Your task to perform on an android device: Open internet settings Image 0: 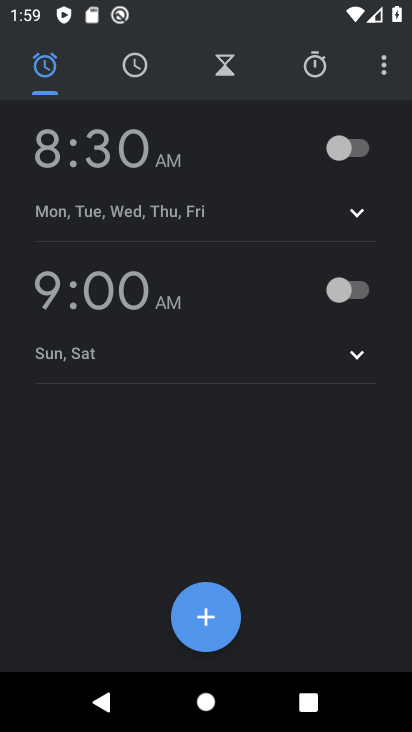
Step 0: press back button
Your task to perform on an android device: Open internet settings Image 1: 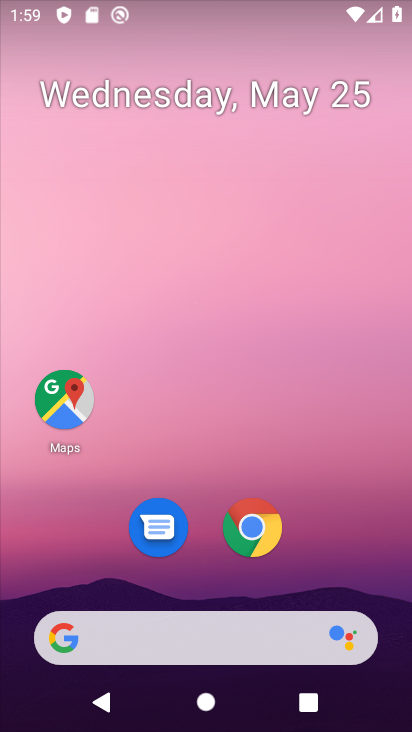
Step 1: drag from (236, 293) to (252, 5)
Your task to perform on an android device: Open internet settings Image 2: 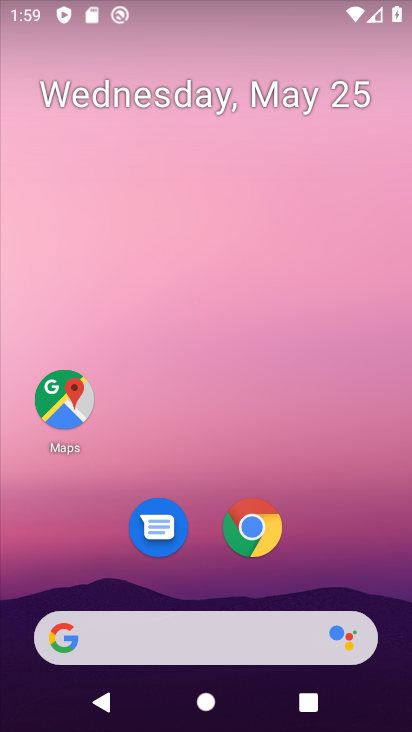
Step 2: drag from (173, 567) to (250, 50)
Your task to perform on an android device: Open internet settings Image 3: 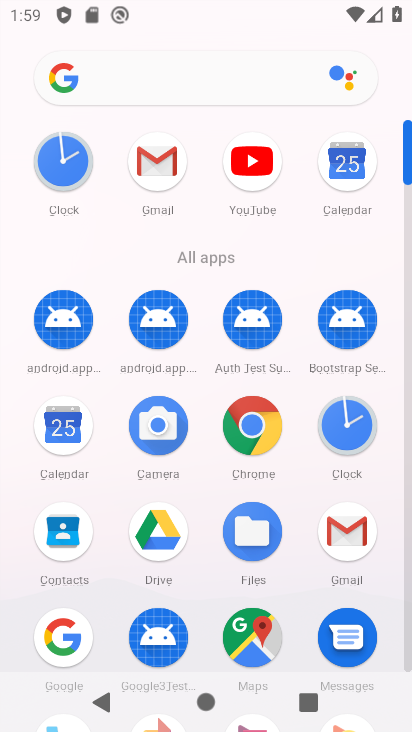
Step 3: drag from (186, 588) to (241, 37)
Your task to perform on an android device: Open internet settings Image 4: 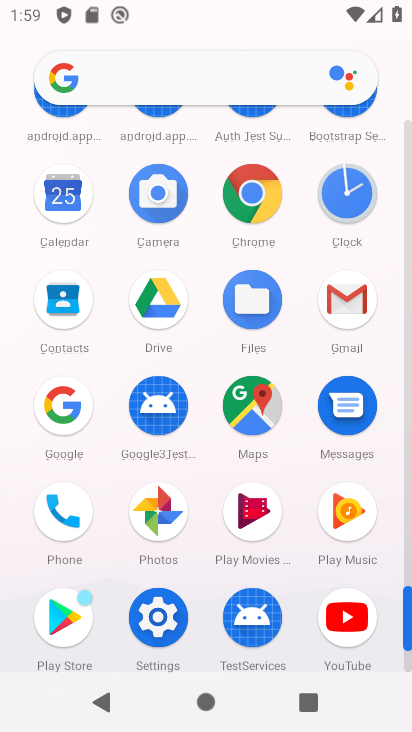
Step 4: click (149, 602)
Your task to perform on an android device: Open internet settings Image 5: 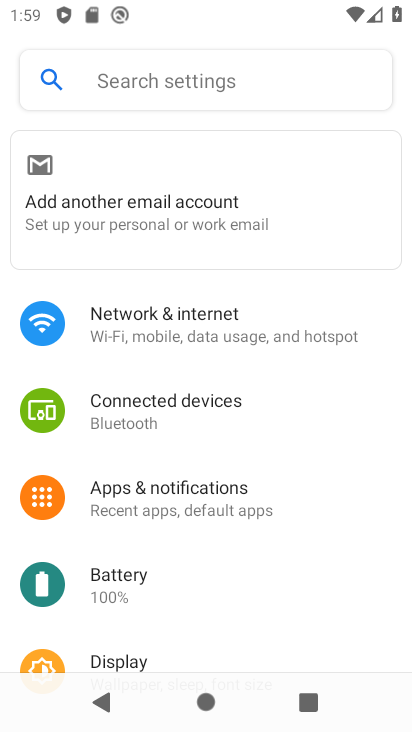
Step 5: click (171, 322)
Your task to perform on an android device: Open internet settings Image 6: 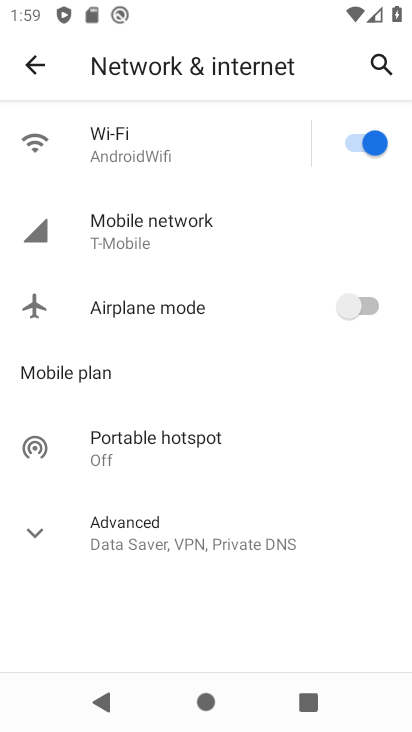
Step 6: task complete